Your task to perform on an android device: Where can I buy a nice beach chair? Image 0: 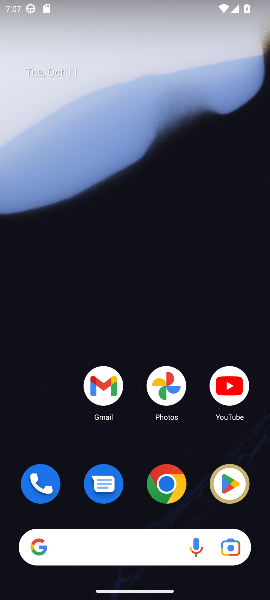
Step 0: click (168, 482)
Your task to perform on an android device: Where can I buy a nice beach chair? Image 1: 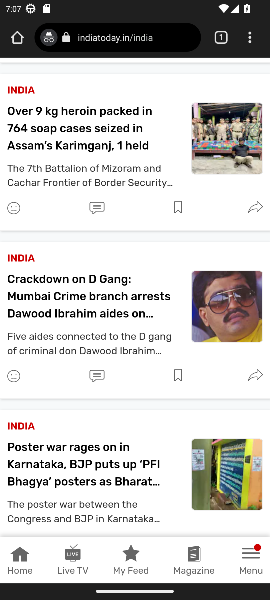
Step 1: click (151, 39)
Your task to perform on an android device: Where can I buy a nice beach chair? Image 2: 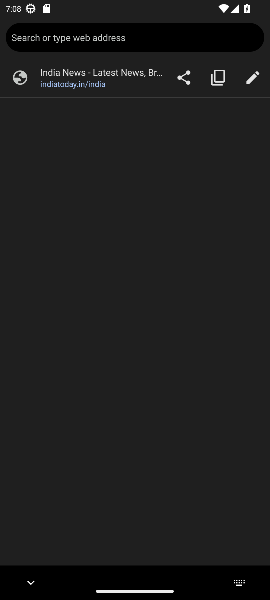
Step 2: type "Where can I buy a nice beach chair?"
Your task to perform on an android device: Where can I buy a nice beach chair? Image 3: 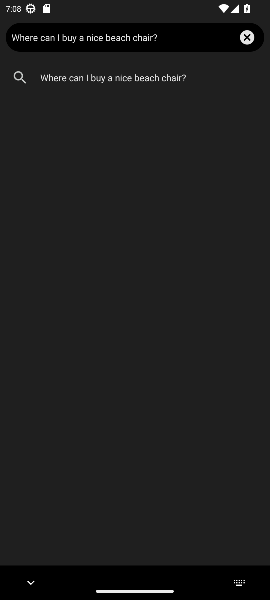
Step 3: click (147, 79)
Your task to perform on an android device: Where can I buy a nice beach chair? Image 4: 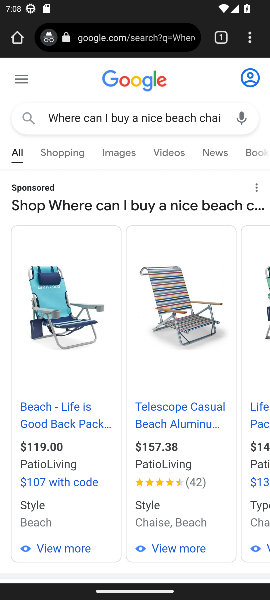
Step 4: drag from (108, 502) to (130, 310)
Your task to perform on an android device: Where can I buy a nice beach chair? Image 5: 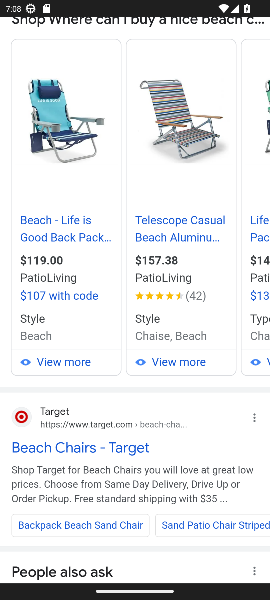
Step 5: click (119, 442)
Your task to perform on an android device: Where can I buy a nice beach chair? Image 6: 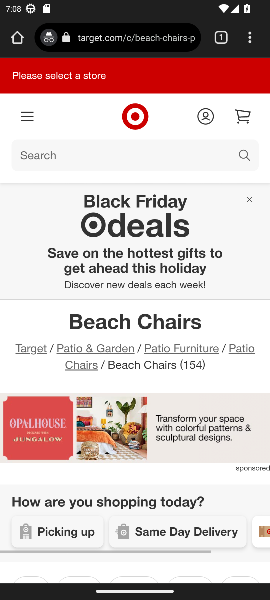
Step 6: task complete